Your task to perform on an android device: stop showing notifications on the lock screen Image 0: 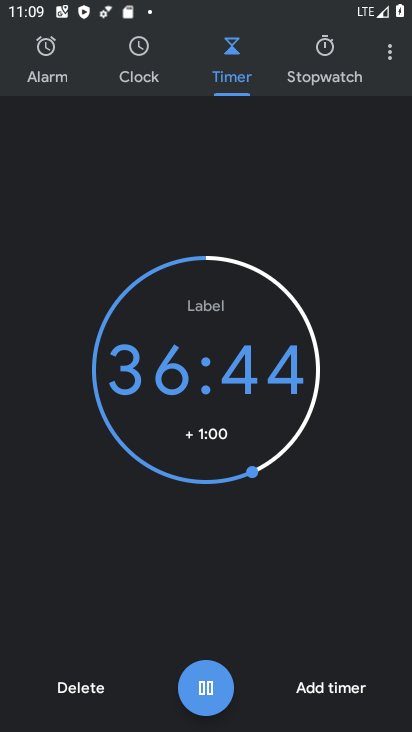
Step 0: press back button
Your task to perform on an android device: stop showing notifications on the lock screen Image 1: 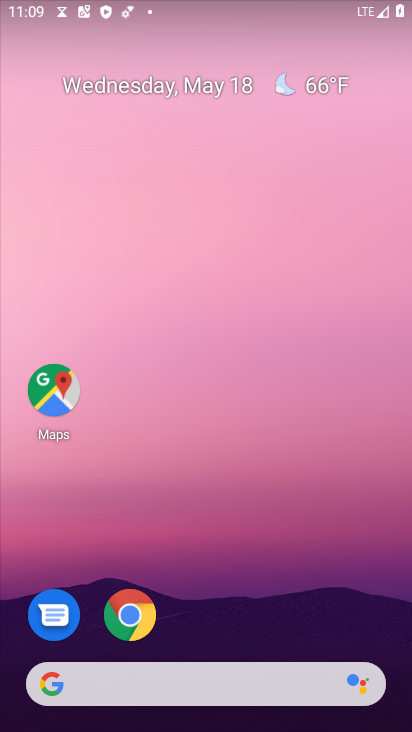
Step 1: drag from (268, 462) to (267, 27)
Your task to perform on an android device: stop showing notifications on the lock screen Image 2: 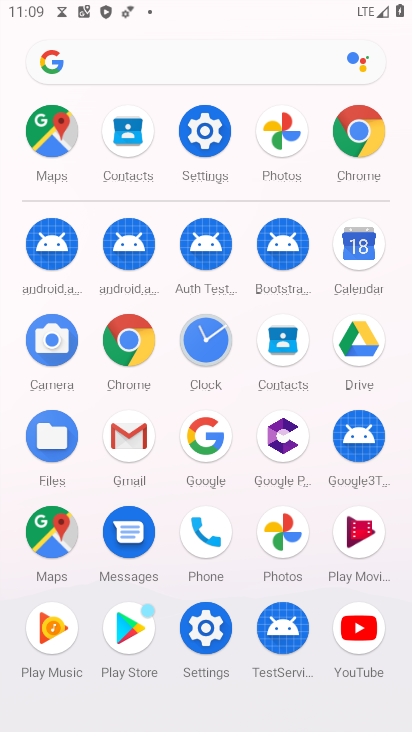
Step 2: drag from (5, 594) to (17, 321)
Your task to perform on an android device: stop showing notifications on the lock screen Image 3: 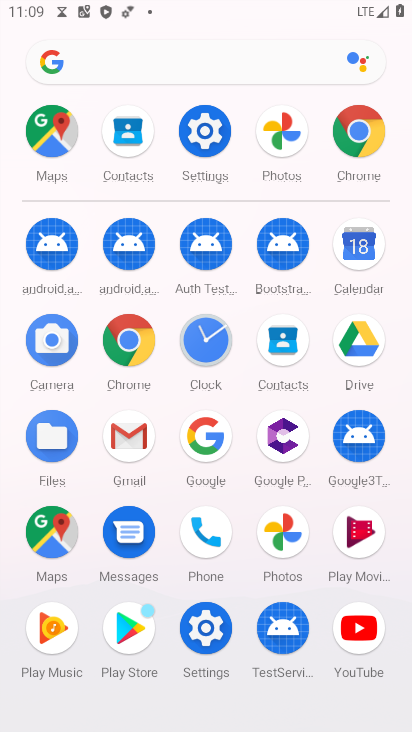
Step 3: click (204, 629)
Your task to perform on an android device: stop showing notifications on the lock screen Image 4: 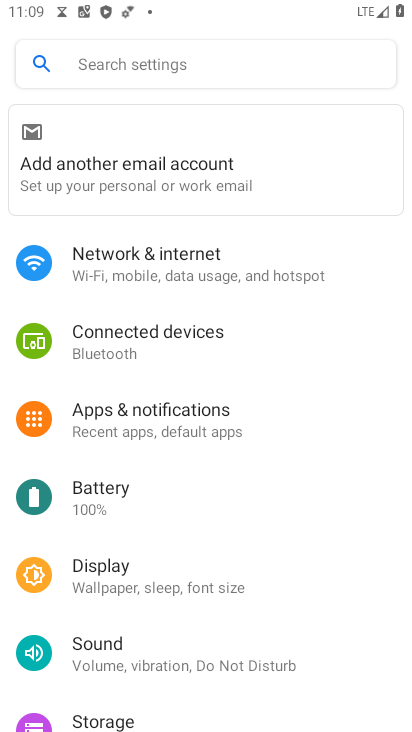
Step 4: click (210, 421)
Your task to perform on an android device: stop showing notifications on the lock screen Image 5: 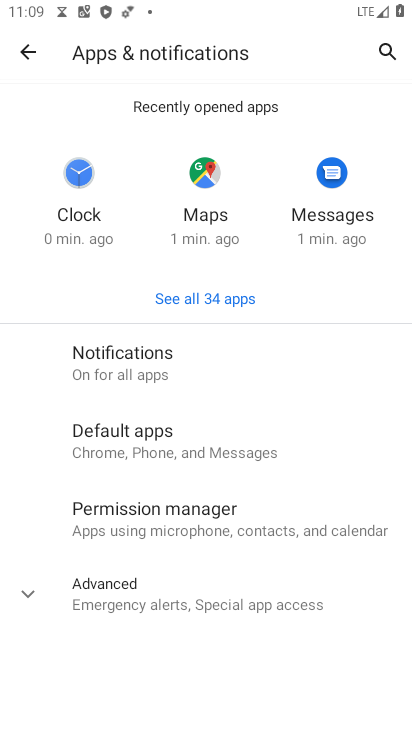
Step 5: click (36, 587)
Your task to perform on an android device: stop showing notifications on the lock screen Image 6: 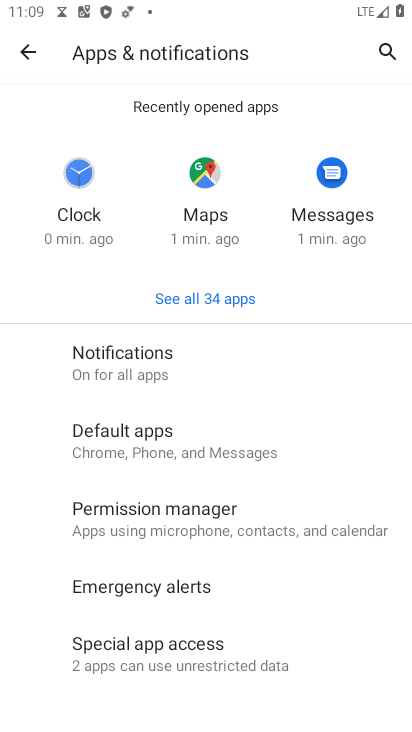
Step 6: click (183, 357)
Your task to perform on an android device: stop showing notifications on the lock screen Image 7: 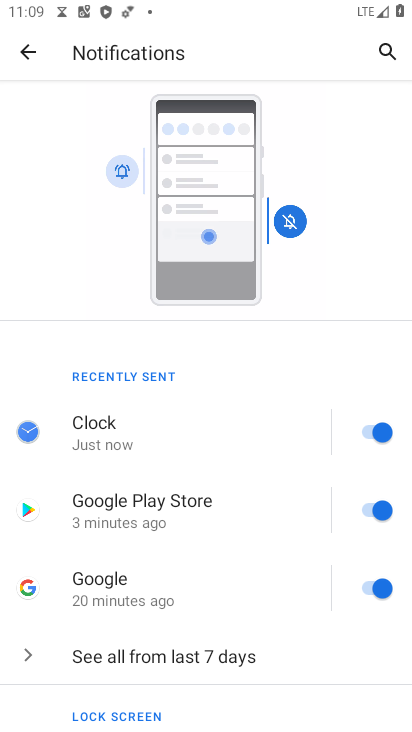
Step 7: drag from (202, 570) to (272, 114)
Your task to perform on an android device: stop showing notifications on the lock screen Image 8: 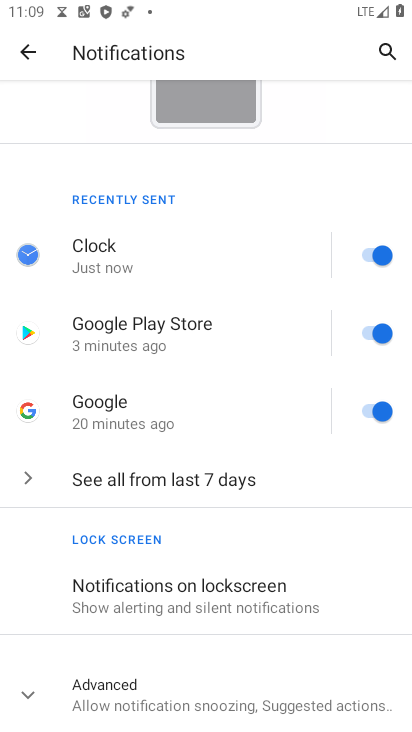
Step 8: click (196, 645)
Your task to perform on an android device: stop showing notifications on the lock screen Image 9: 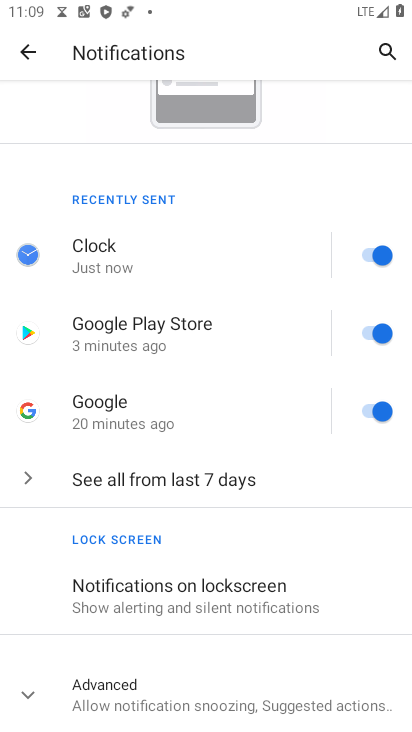
Step 9: drag from (201, 637) to (270, 203)
Your task to perform on an android device: stop showing notifications on the lock screen Image 10: 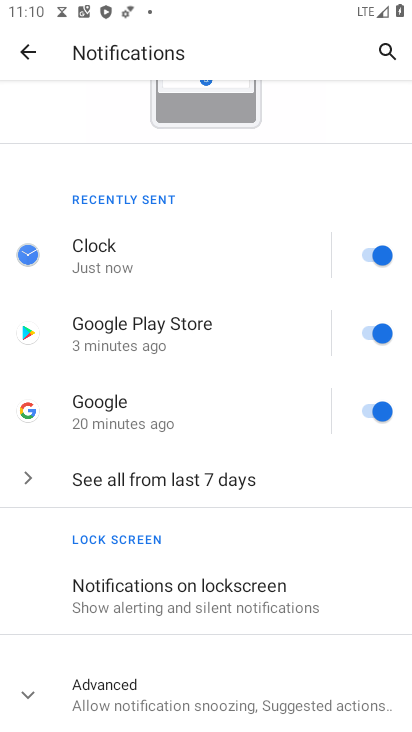
Step 10: click (215, 592)
Your task to perform on an android device: stop showing notifications on the lock screen Image 11: 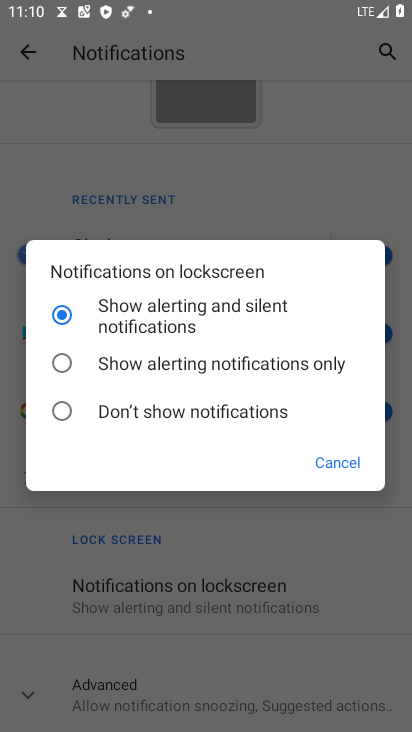
Step 11: click (122, 412)
Your task to perform on an android device: stop showing notifications on the lock screen Image 12: 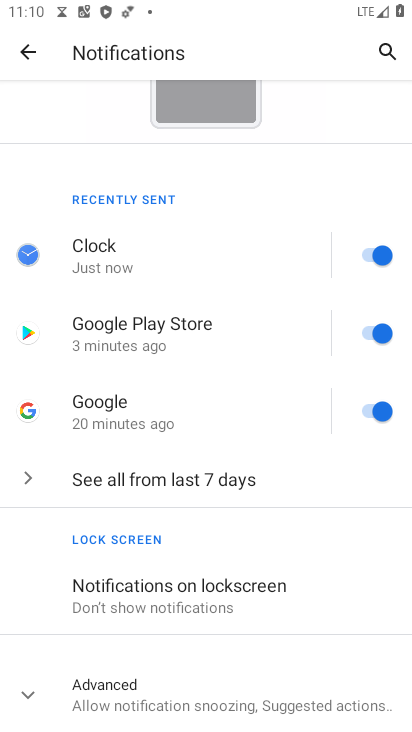
Step 12: task complete